Your task to perform on an android device: turn off smart reply in the gmail app Image 0: 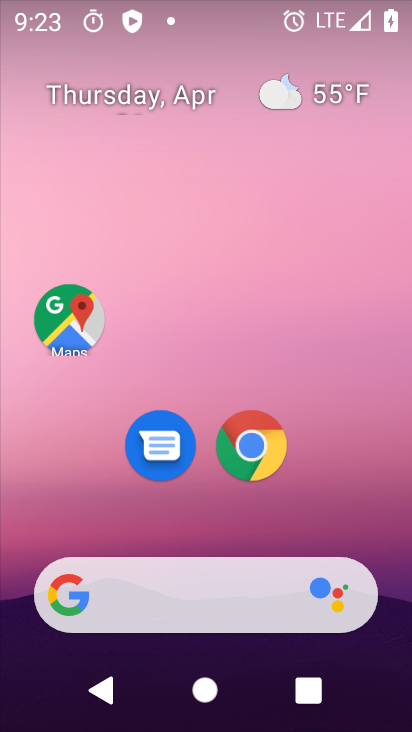
Step 0: drag from (352, 498) to (374, 0)
Your task to perform on an android device: turn off smart reply in the gmail app Image 1: 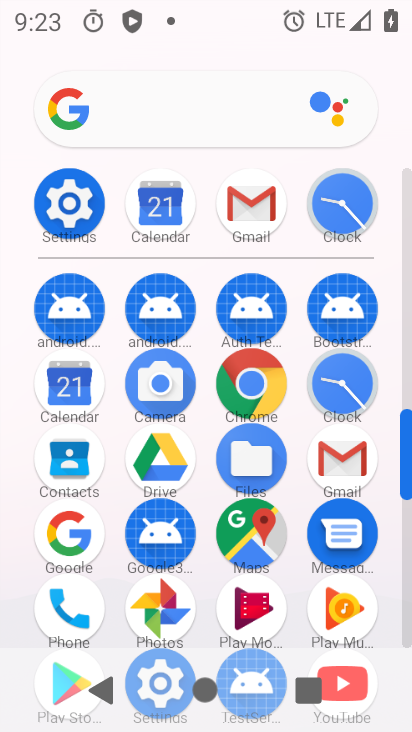
Step 1: click (263, 216)
Your task to perform on an android device: turn off smart reply in the gmail app Image 2: 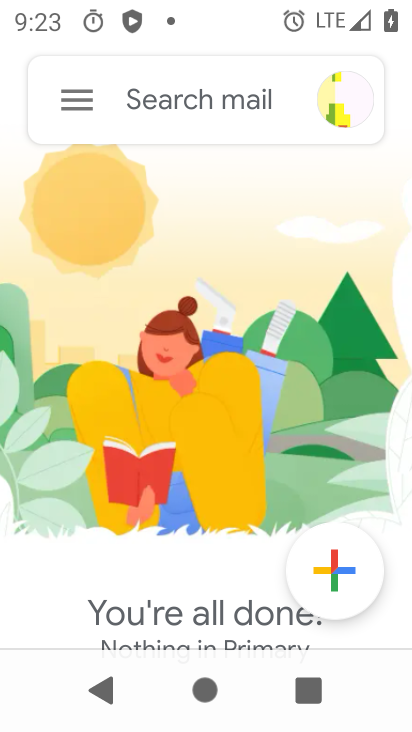
Step 2: click (86, 98)
Your task to perform on an android device: turn off smart reply in the gmail app Image 3: 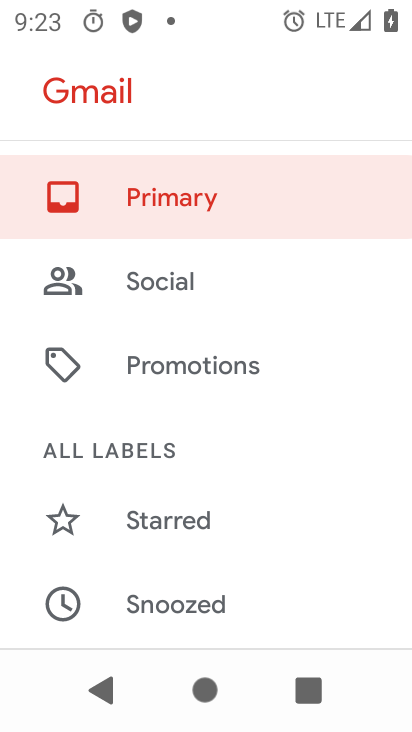
Step 3: drag from (268, 489) to (258, 77)
Your task to perform on an android device: turn off smart reply in the gmail app Image 4: 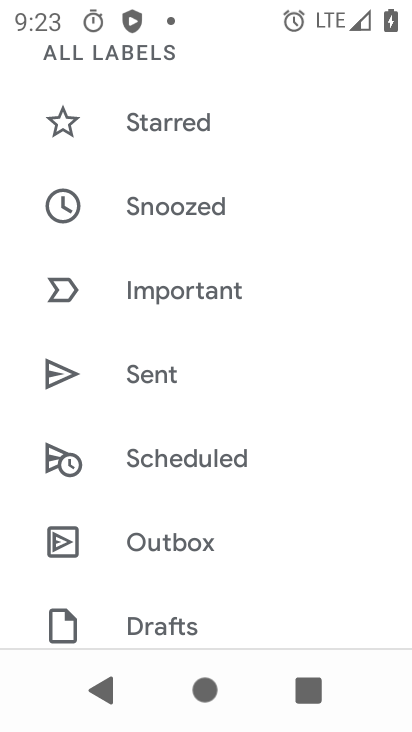
Step 4: drag from (278, 475) to (261, 195)
Your task to perform on an android device: turn off smart reply in the gmail app Image 5: 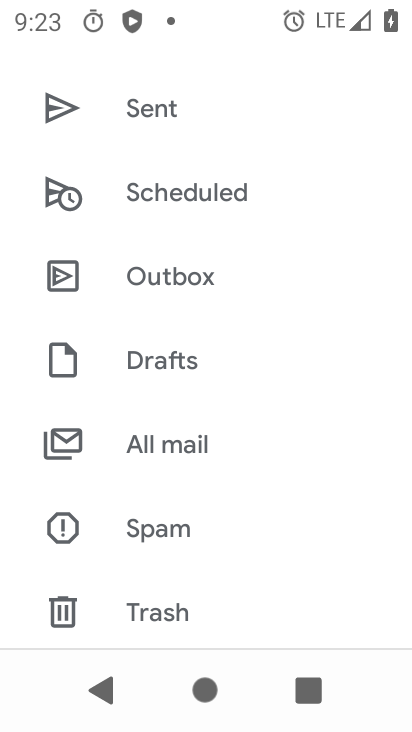
Step 5: drag from (278, 590) to (260, 84)
Your task to perform on an android device: turn off smart reply in the gmail app Image 6: 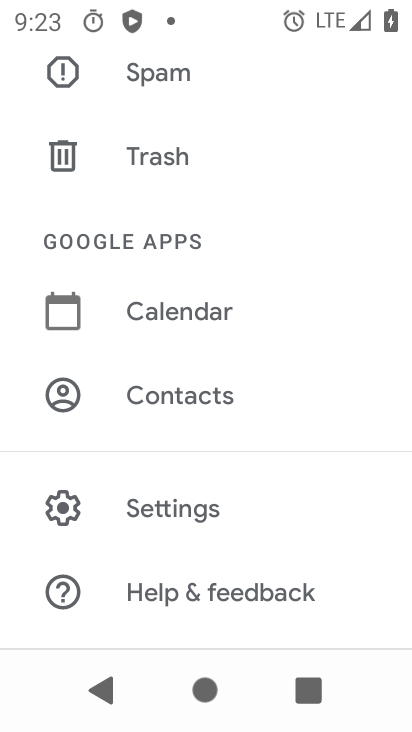
Step 6: drag from (281, 525) to (273, 172)
Your task to perform on an android device: turn off smart reply in the gmail app Image 7: 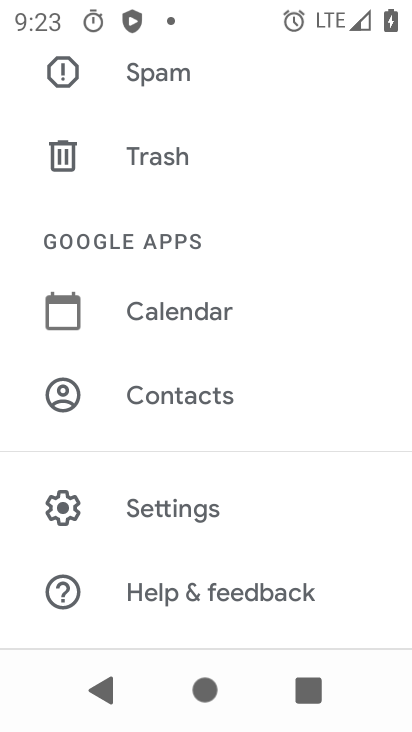
Step 7: click (168, 515)
Your task to perform on an android device: turn off smart reply in the gmail app Image 8: 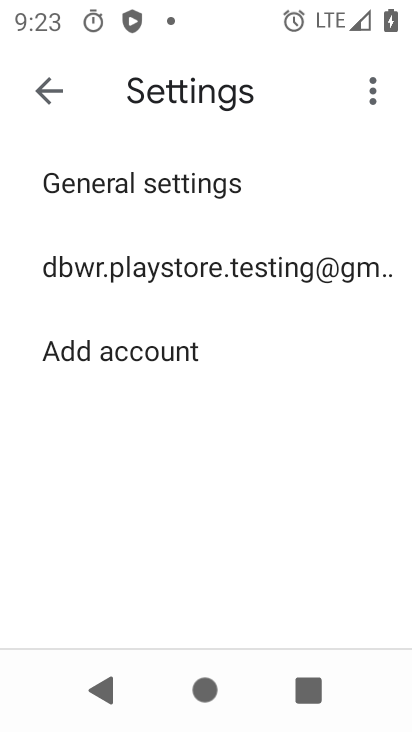
Step 8: click (115, 274)
Your task to perform on an android device: turn off smart reply in the gmail app Image 9: 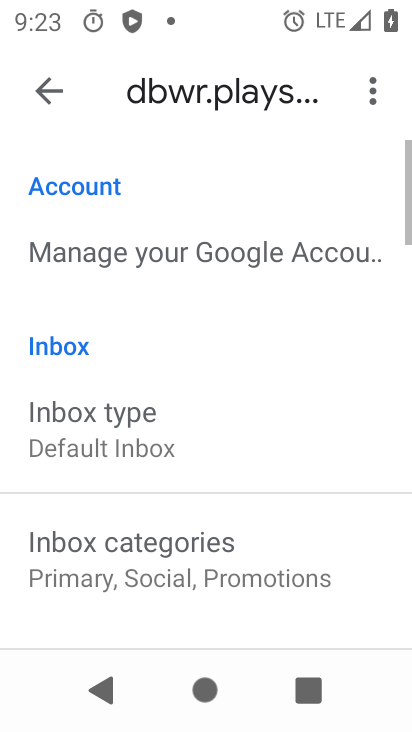
Step 9: drag from (238, 501) to (233, 131)
Your task to perform on an android device: turn off smart reply in the gmail app Image 10: 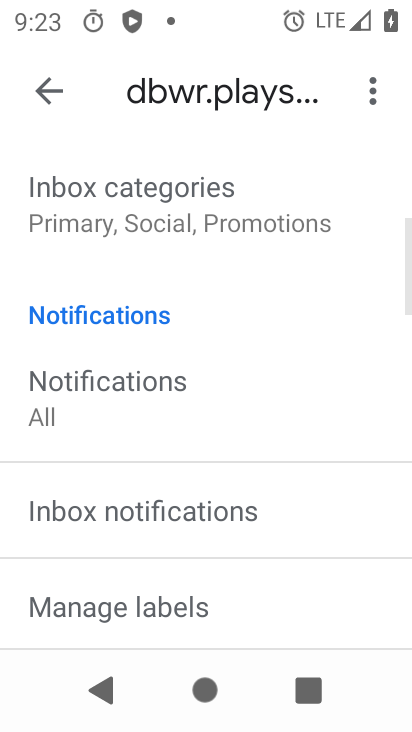
Step 10: drag from (240, 474) to (240, 157)
Your task to perform on an android device: turn off smart reply in the gmail app Image 11: 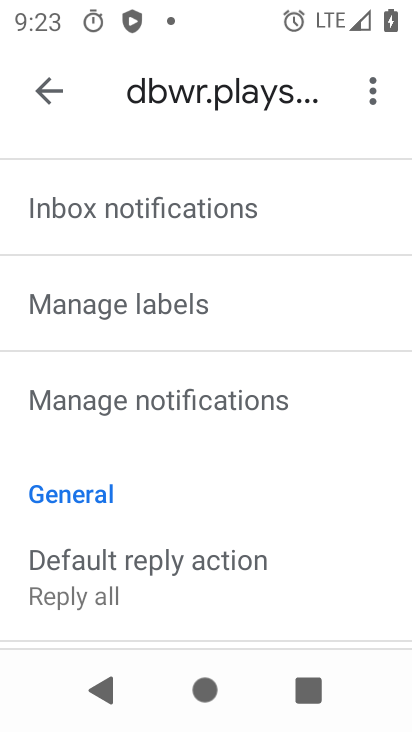
Step 11: drag from (239, 491) to (229, 207)
Your task to perform on an android device: turn off smart reply in the gmail app Image 12: 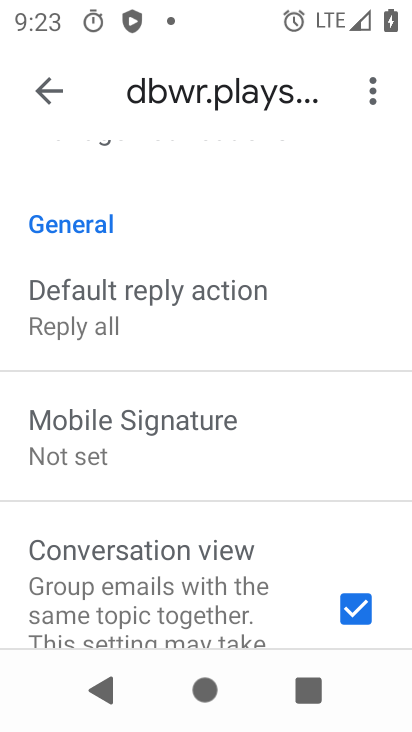
Step 12: drag from (209, 511) to (188, 81)
Your task to perform on an android device: turn off smart reply in the gmail app Image 13: 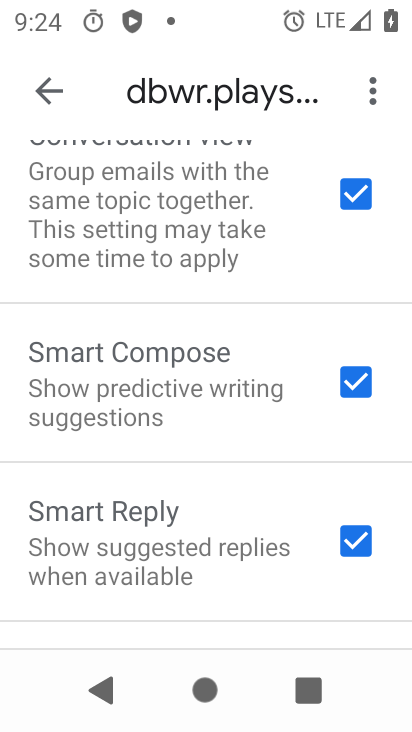
Step 13: click (380, 534)
Your task to perform on an android device: turn off smart reply in the gmail app Image 14: 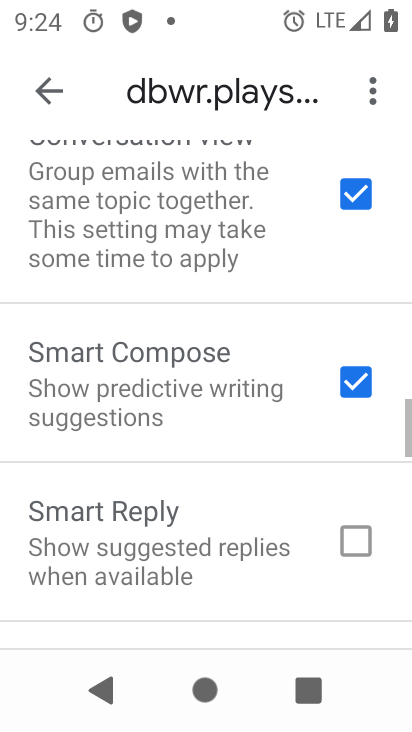
Step 14: task complete